Your task to perform on an android device: What's on my calendar today? Image 0: 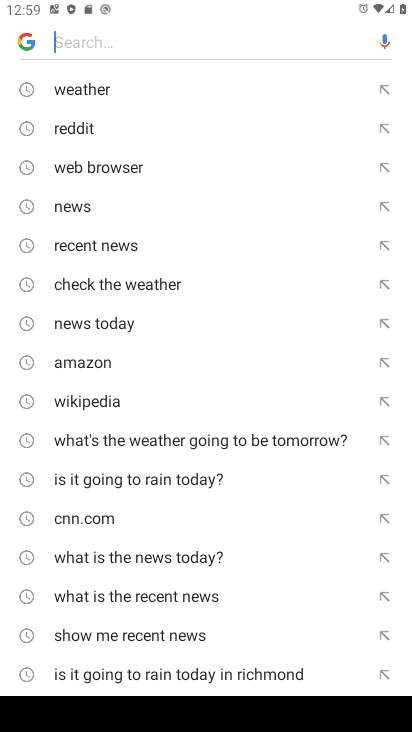
Step 0: press home button
Your task to perform on an android device: What's on my calendar today? Image 1: 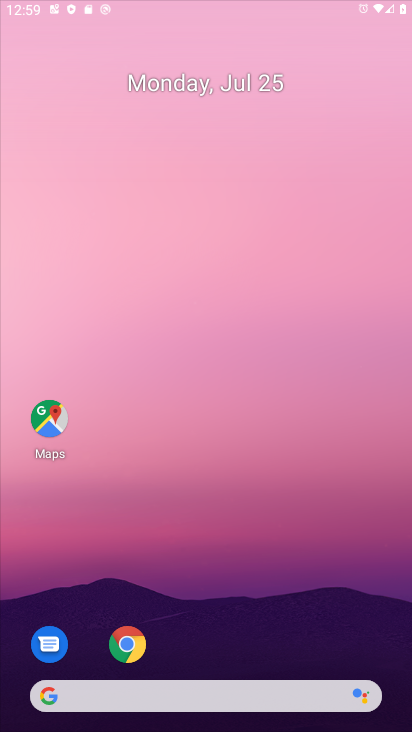
Step 1: drag from (375, 670) to (282, 54)
Your task to perform on an android device: What's on my calendar today? Image 2: 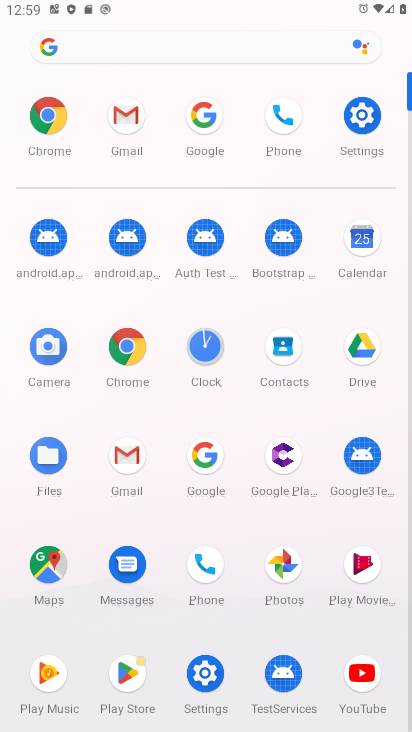
Step 2: click (360, 252)
Your task to perform on an android device: What's on my calendar today? Image 3: 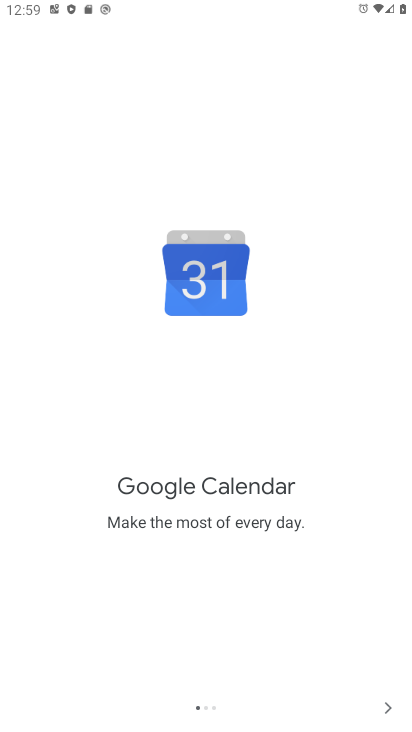
Step 3: click (384, 712)
Your task to perform on an android device: What's on my calendar today? Image 4: 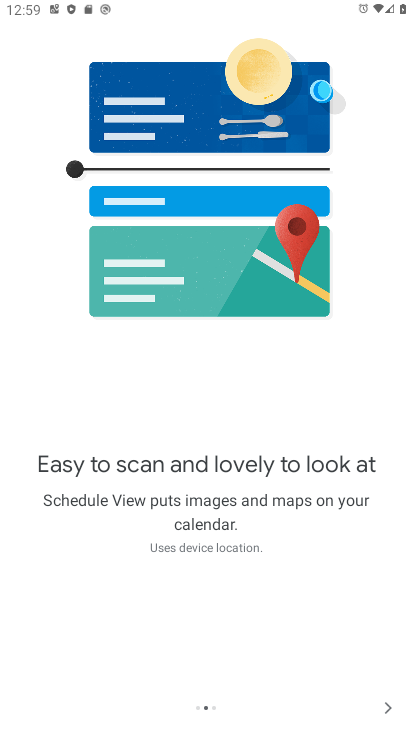
Step 4: click (389, 695)
Your task to perform on an android device: What's on my calendar today? Image 5: 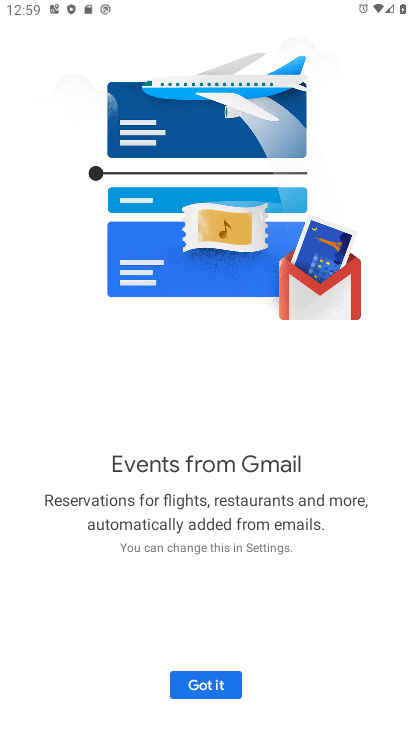
Step 5: click (389, 695)
Your task to perform on an android device: What's on my calendar today? Image 6: 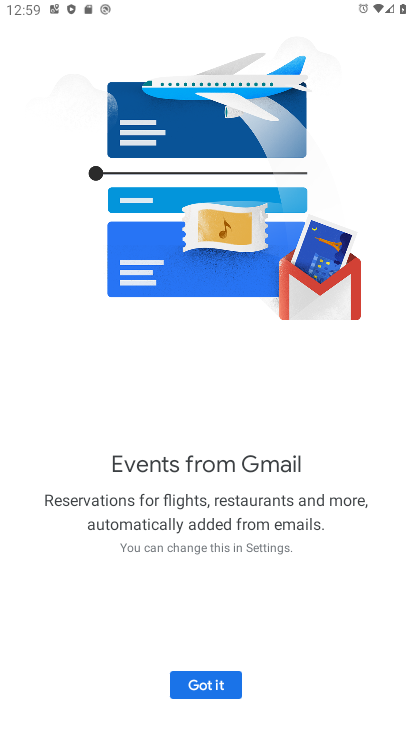
Step 6: click (190, 680)
Your task to perform on an android device: What's on my calendar today? Image 7: 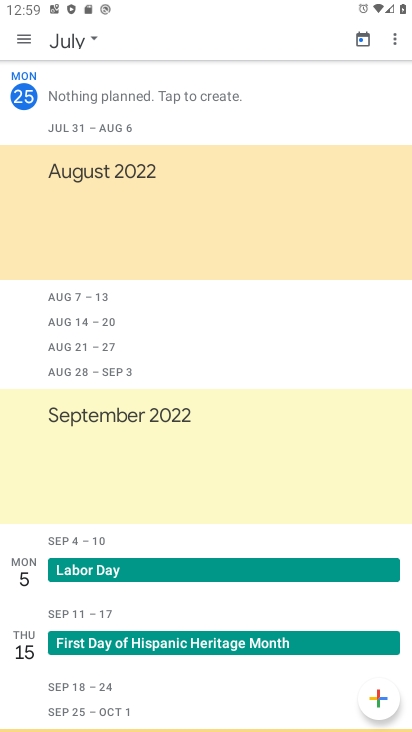
Step 7: task complete